Your task to perform on an android device: turn pop-ups off in chrome Image 0: 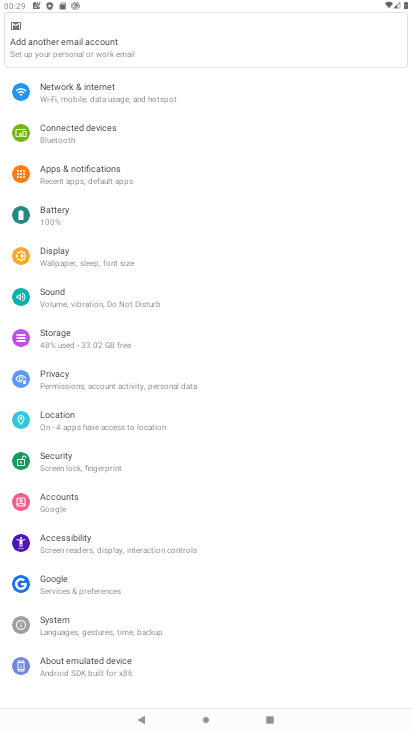
Step 0: press home button
Your task to perform on an android device: turn pop-ups off in chrome Image 1: 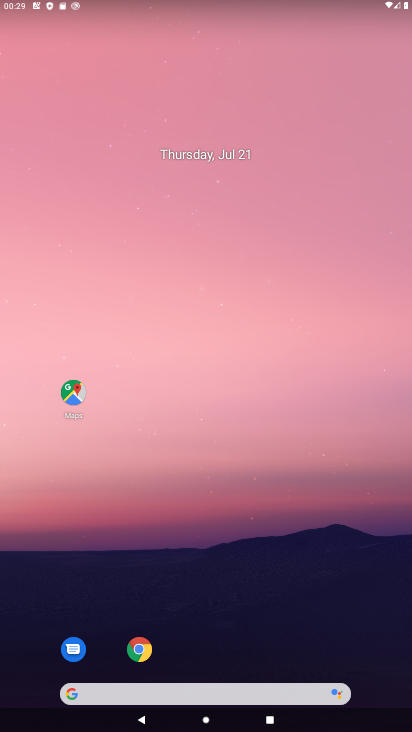
Step 1: drag from (234, 727) to (183, 196)
Your task to perform on an android device: turn pop-ups off in chrome Image 2: 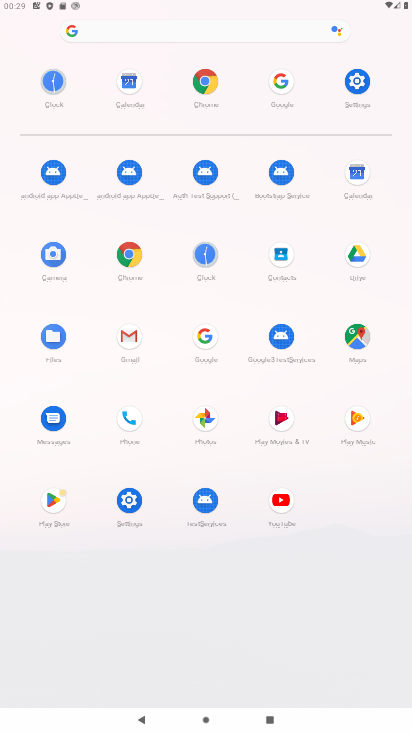
Step 2: click (127, 258)
Your task to perform on an android device: turn pop-ups off in chrome Image 3: 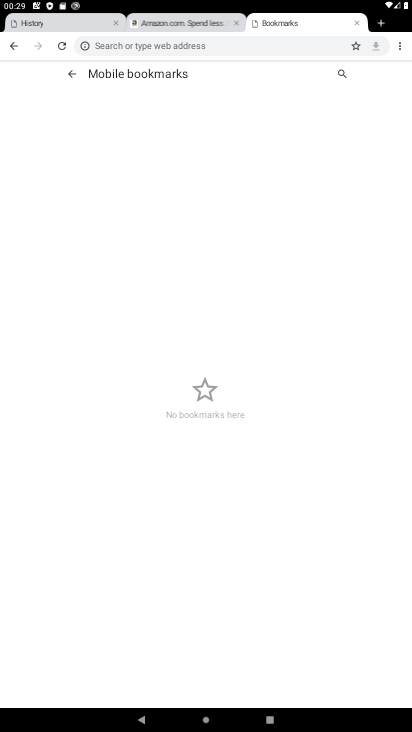
Step 3: click (400, 51)
Your task to perform on an android device: turn pop-ups off in chrome Image 4: 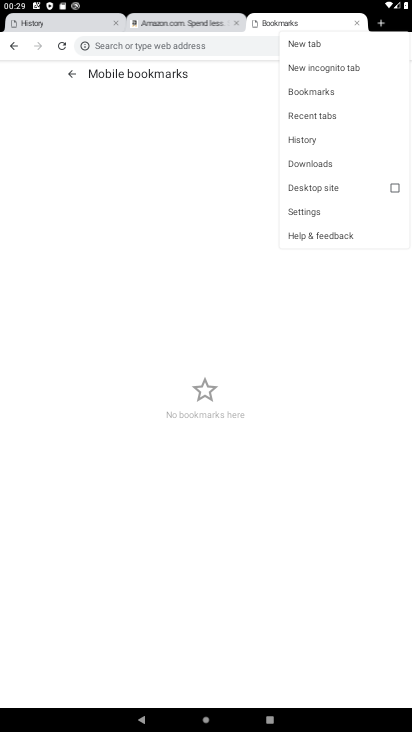
Step 4: click (308, 213)
Your task to perform on an android device: turn pop-ups off in chrome Image 5: 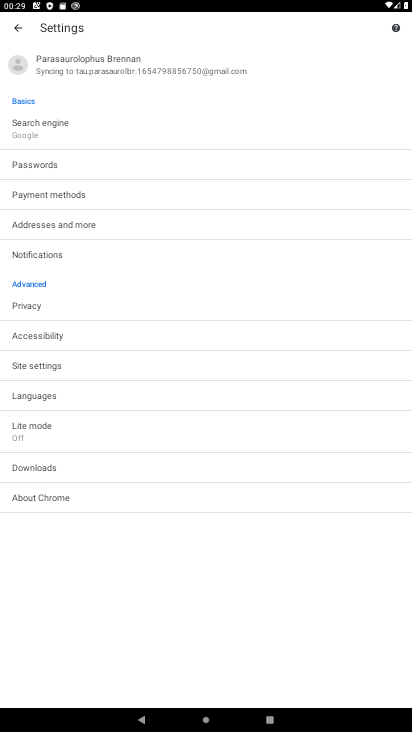
Step 5: click (47, 364)
Your task to perform on an android device: turn pop-ups off in chrome Image 6: 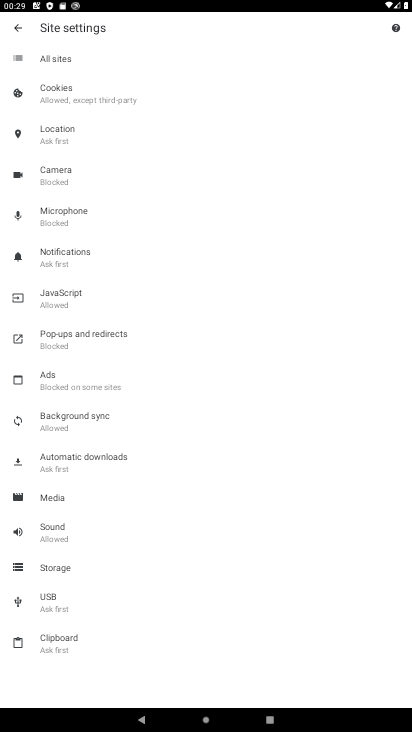
Step 6: click (60, 335)
Your task to perform on an android device: turn pop-ups off in chrome Image 7: 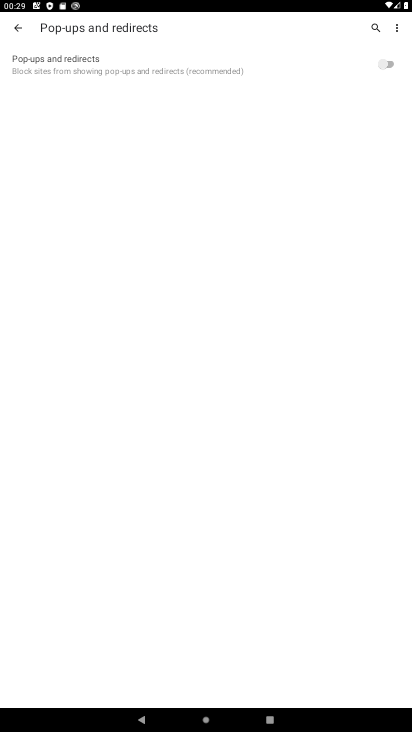
Step 7: task complete